Your task to perform on an android device: Open settings Image 0: 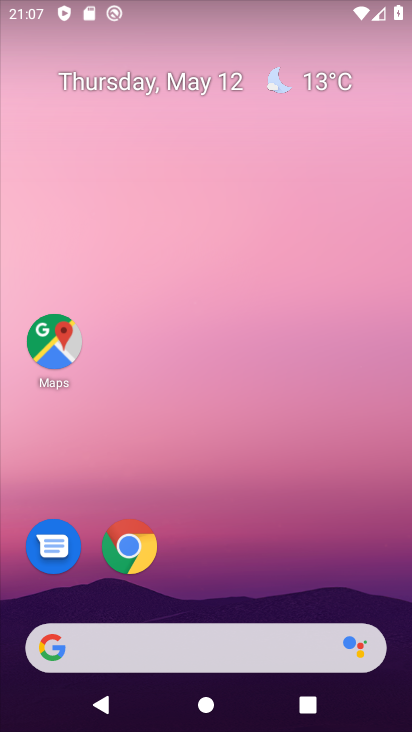
Step 0: drag from (276, 531) to (328, 93)
Your task to perform on an android device: Open settings Image 1: 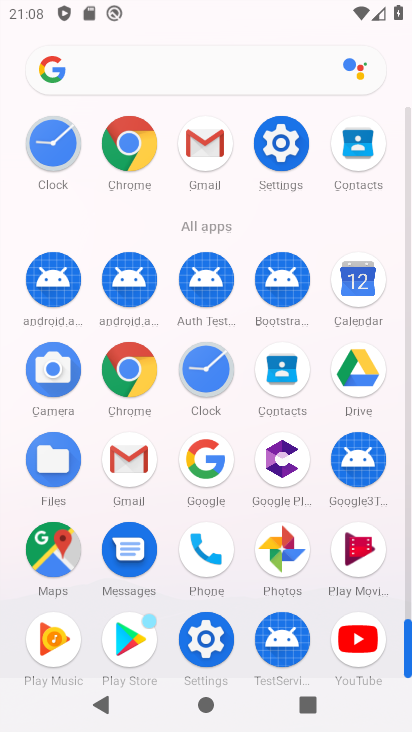
Step 1: click (212, 636)
Your task to perform on an android device: Open settings Image 2: 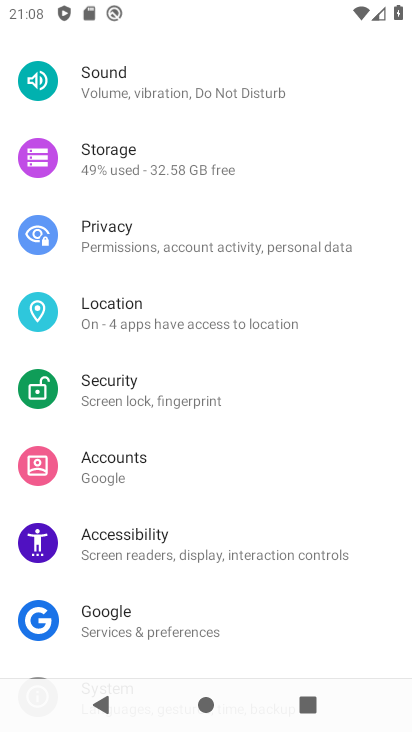
Step 2: task complete